Your task to perform on an android device: Go to Wikipedia Image 0: 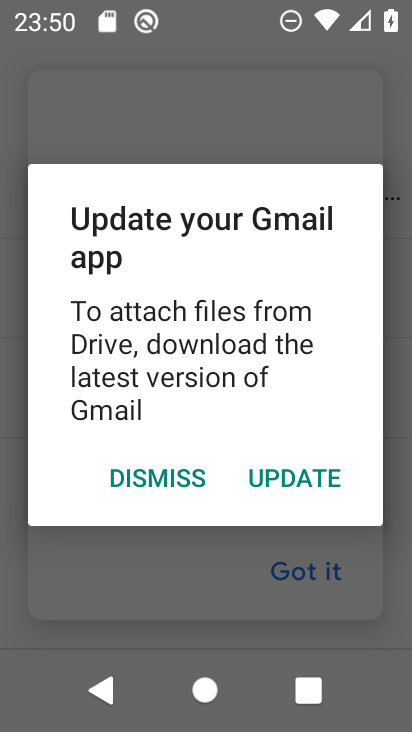
Step 0: press home button
Your task to perform on an android device: Go to Wikipedia Image 1: 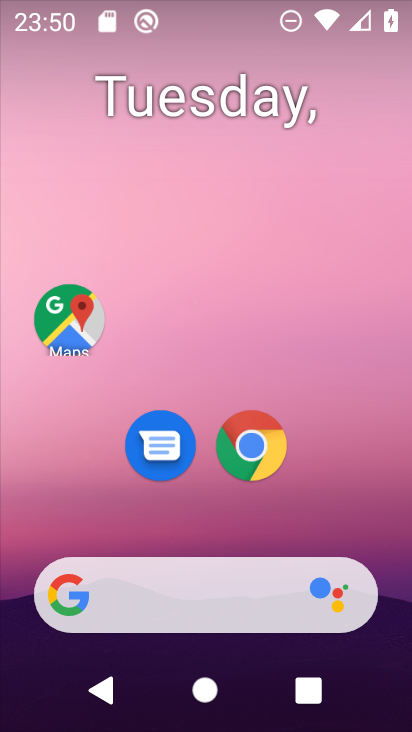
Step 1: click (260, 441)
Your task to perform on an android device: Go to Wikipedia Image 2: 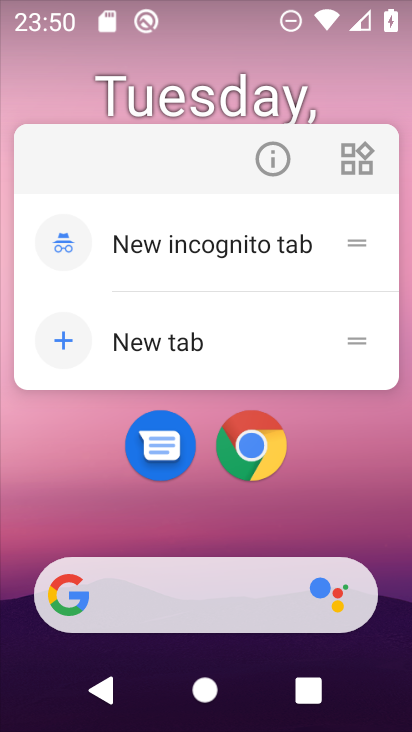
Step 2: click (260, 441)
Your task to perform on an android device: Go to Wikipedia Image 3: 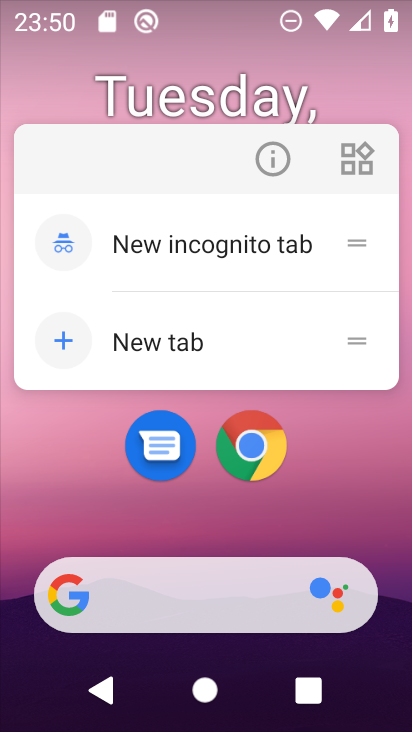
Step 3: click (258, 443)
Your task to perform on an android device: Go to Wikipedia Image 4: 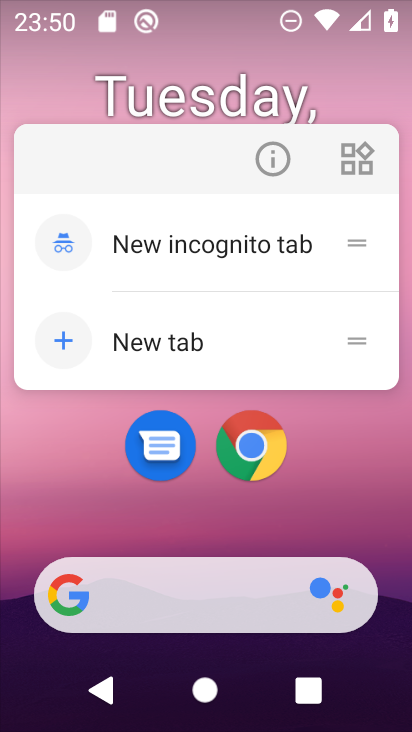
Step 4: click (249, 444)
Your task to perform on an android device: Go to Wikipedia Image 5: 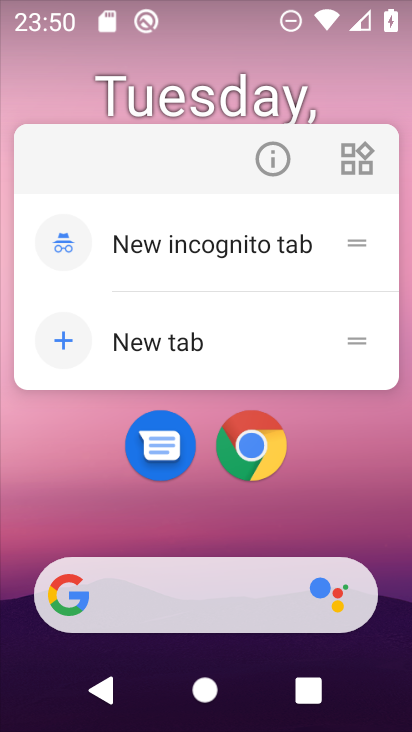
Step 5: click (249, 444)
Your task to perform on an android device: Go to Wikipedia Image 6: 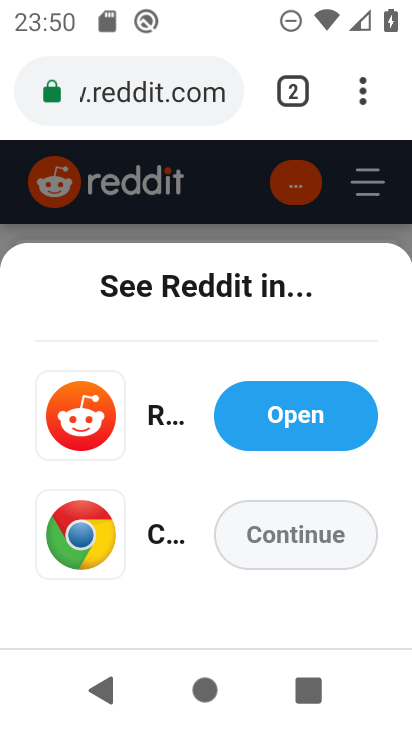
Step 6: click (154, 87)
Your task to perform on an android device: Go to Wikipedia Image 7: 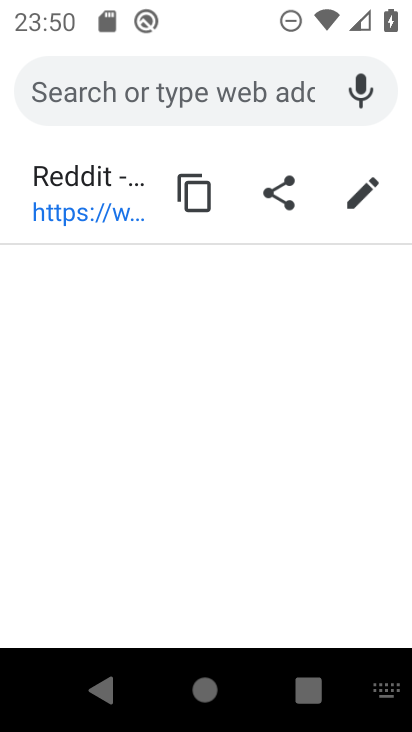
Step 7: type "wikipedia"
Your task to perform on an android device: Go to Wikipedia Image 8: 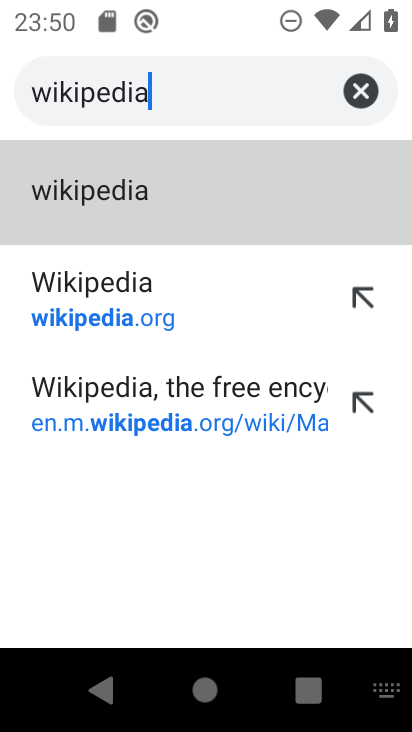
Step 8: click (165, 201)
Your task to perform on an android device: Go to Wikipedia Image 9: 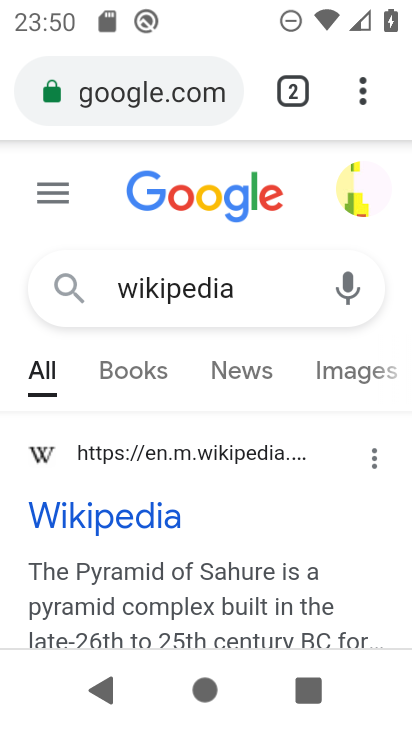
Step 9: click (49, 524)
Your task to perform on an android device: Go to Wikipedia Image 10: 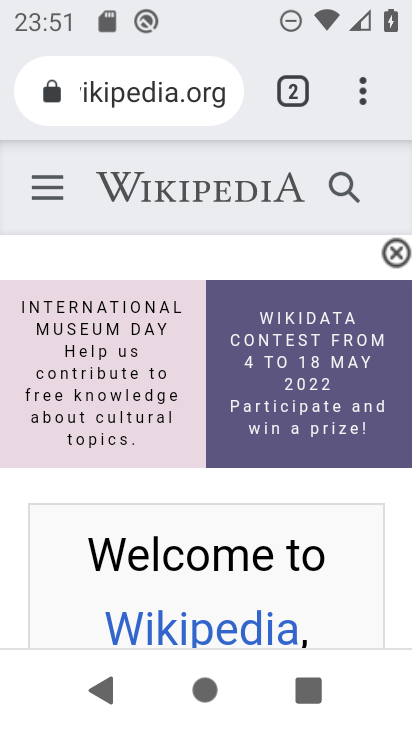
Step 10: task complete